Your task to perform on an android device: What is the recent news? Image 0: 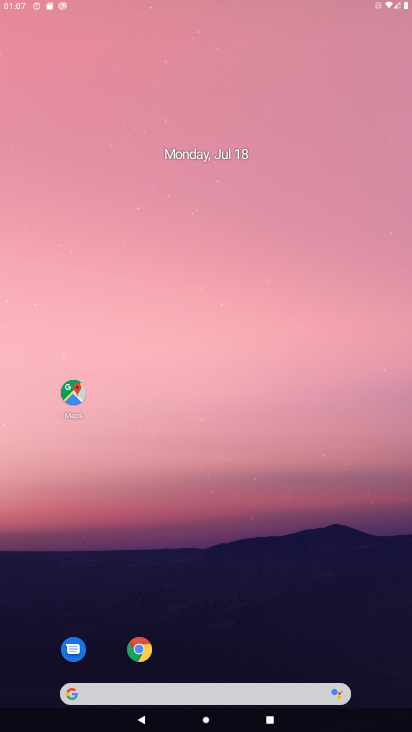
Step 0: drag from (38, 693) to (251, 193)
Your task to perform on an android device: What is the recent news? Image 1: 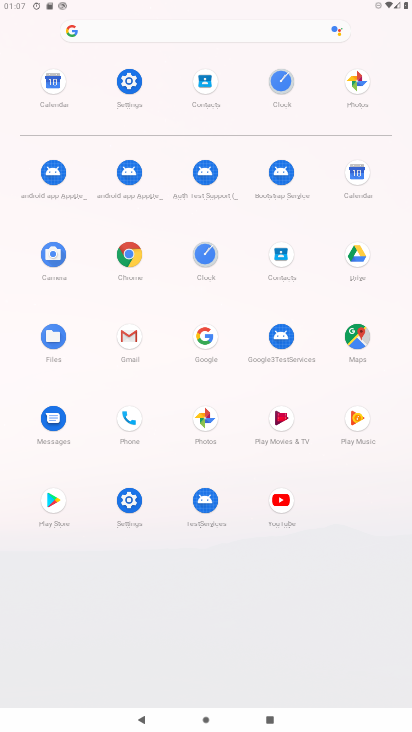
Step 1: press home button
Your task to perform on an android device: What is the recent news? Image 2: 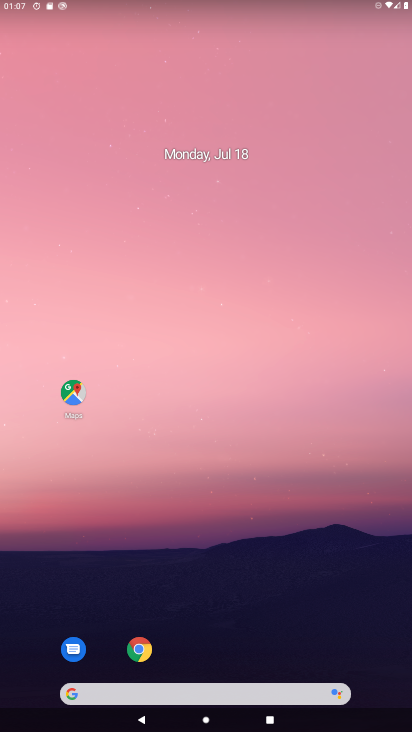
Step 2: click (101, 691)
Your task to perform on an android device: What is the recent news? Image 3: 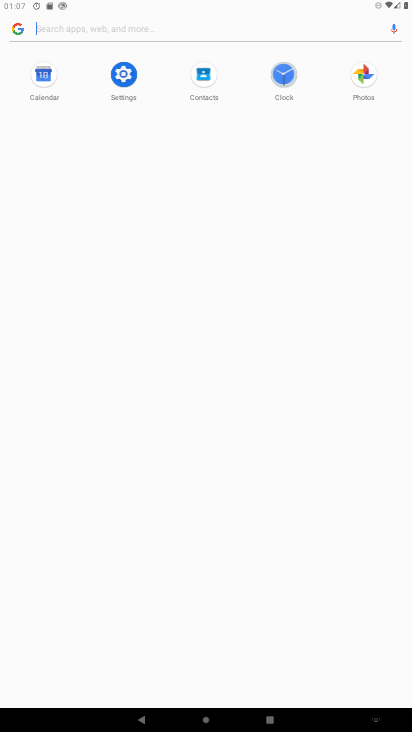
Step 3: type "What is the recent news?"
Your task to perform on an android device: What is the recent news? Image 4: 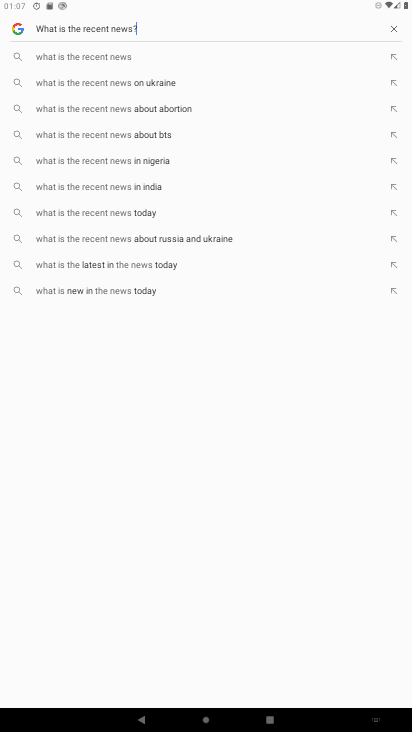
Step 4: type ""
Your task to perform on an android device: What is the recent news? Image 5: 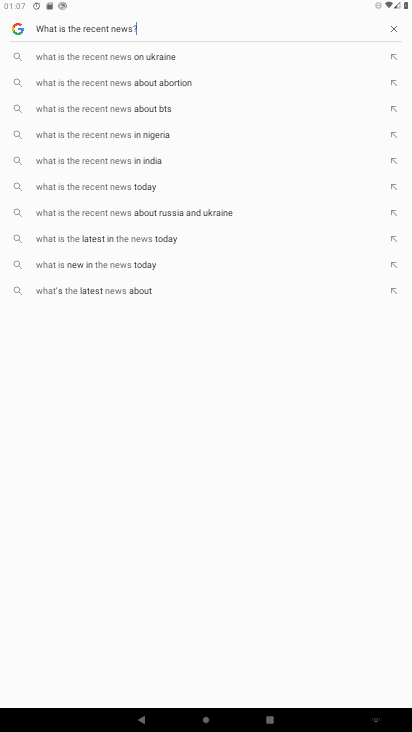
Step 5: type ""
Your task to perform on an android device: What is the recent news? Image 6: 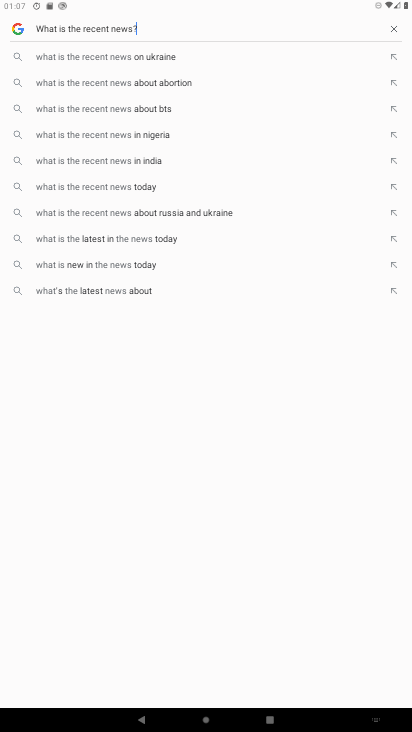
Step 6: type ""
Your task to perform on an android device: What is the recent news? Image 7: 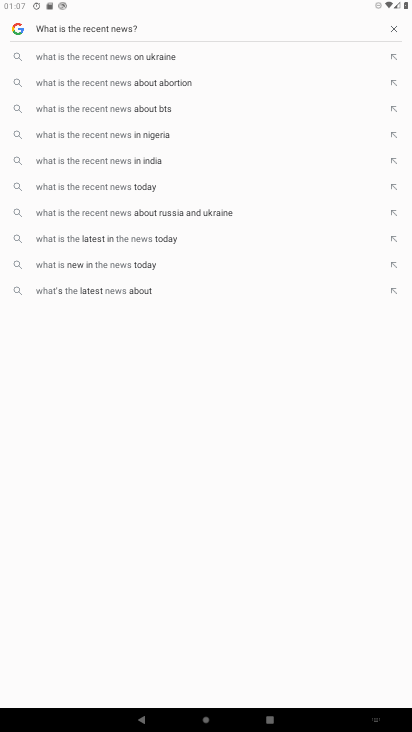
Step 7: task complete